Your task to perform on an android device: change the clock style Image 0: 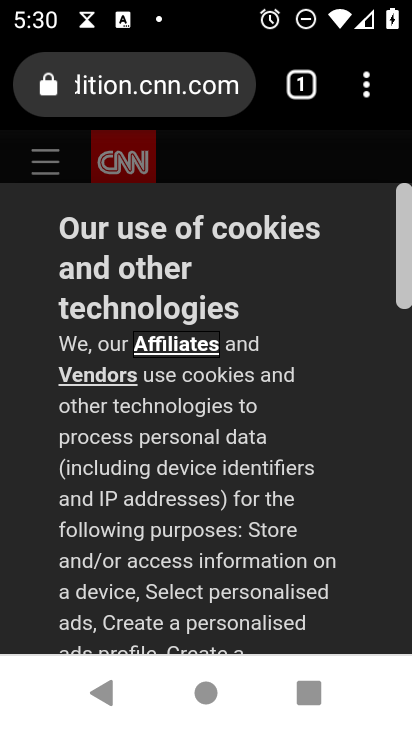
Step 0: press home button
Your task to perform on an android device: change the clock style Image 1: 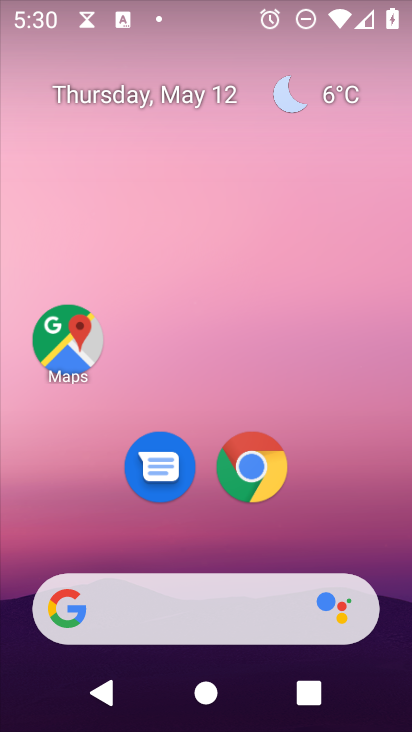
Step 1: drag from (308, 598) to (222, 66)
Your task to perform on an android device: change the clock style Image 2: 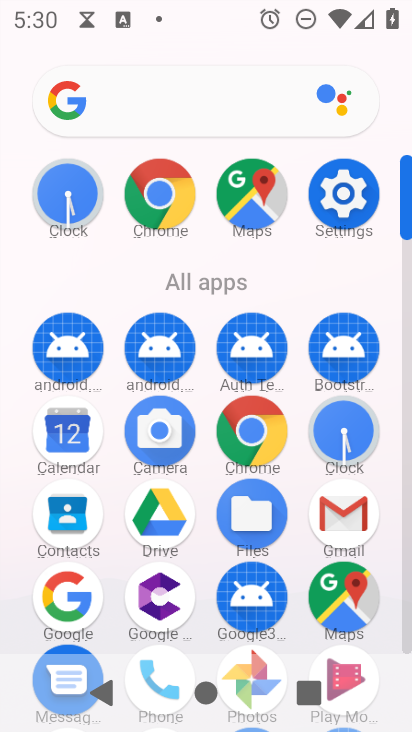
Step 2: click (325, 427)
Your task to perform on an android device: change the clock style Image 3: 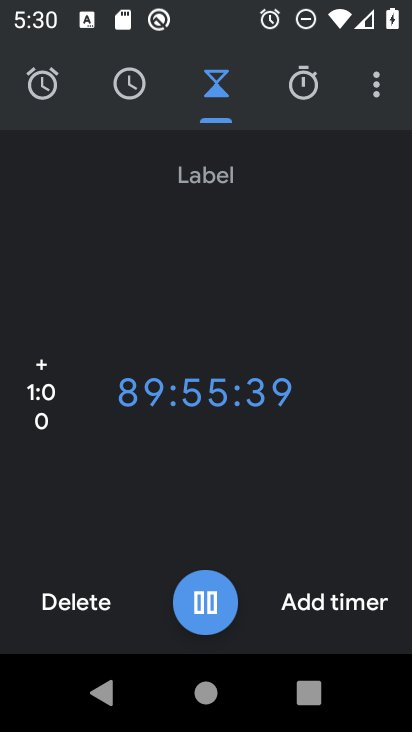
Step 3: click (150, 86)
Your task to perform on an android device: change the clock style Image 4: 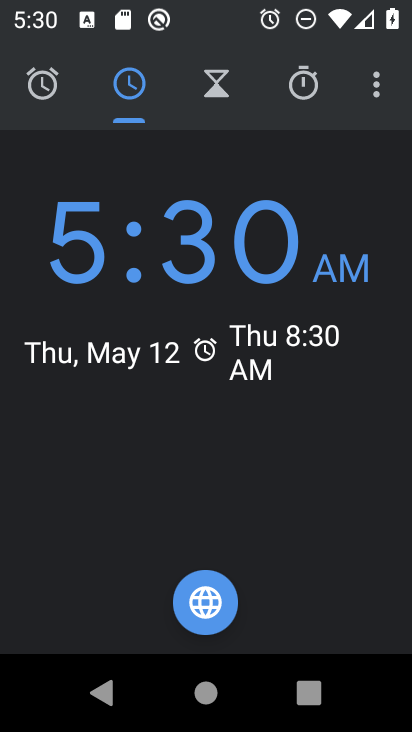
Step 4: click (399, 74)
Your task to perform on an android device: change the clock style Image 5: 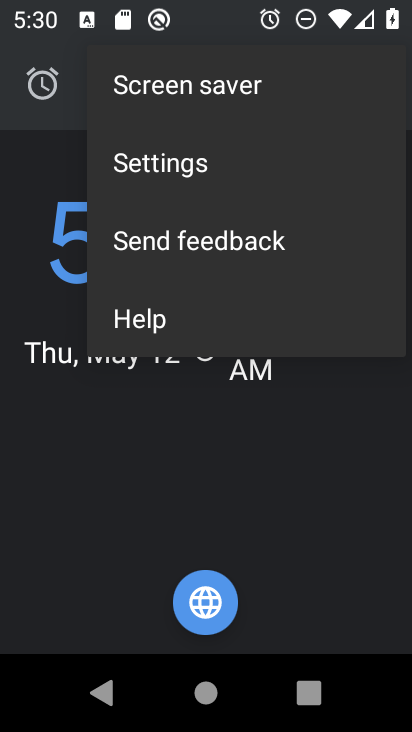
Step 5: click (281, 173)
Your task to perform on an android device: change the clock style Image 6: 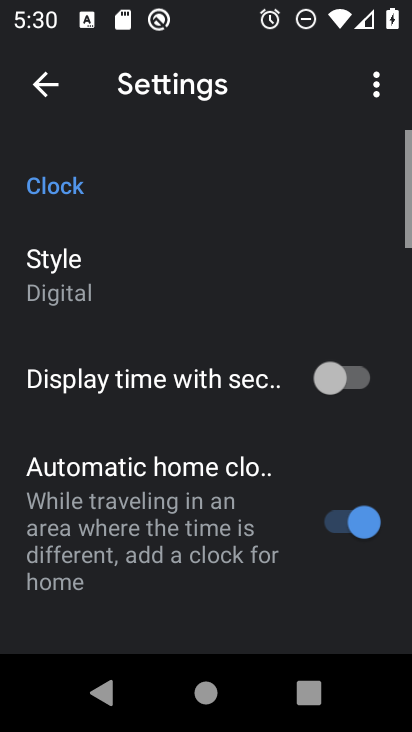
Step 6: click (111, 301)
Your task to perform on an android device: change the clock style Image 7: 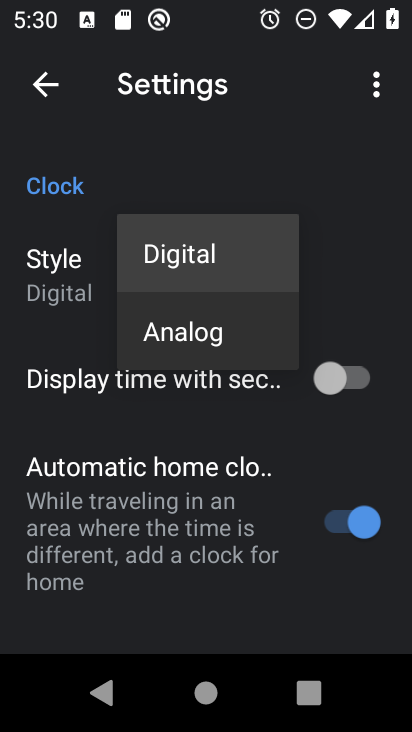
Step 7: click (146, 349)
Your task to perform on an android device: change the clock style Image 8: 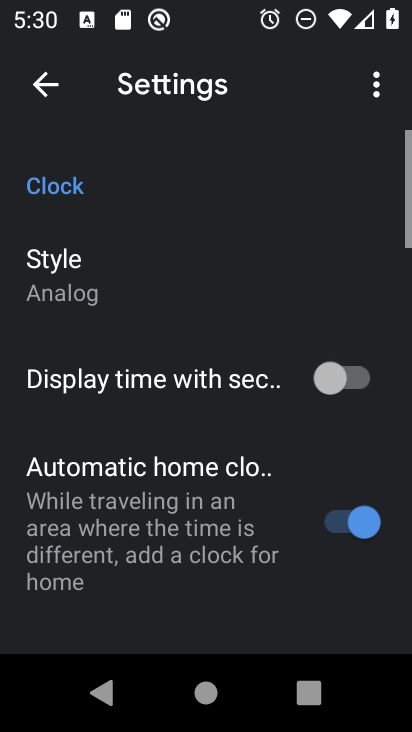
Step 8: task complete